Your task to perform on an android device: Is it going to rain this weekend? Image 0: 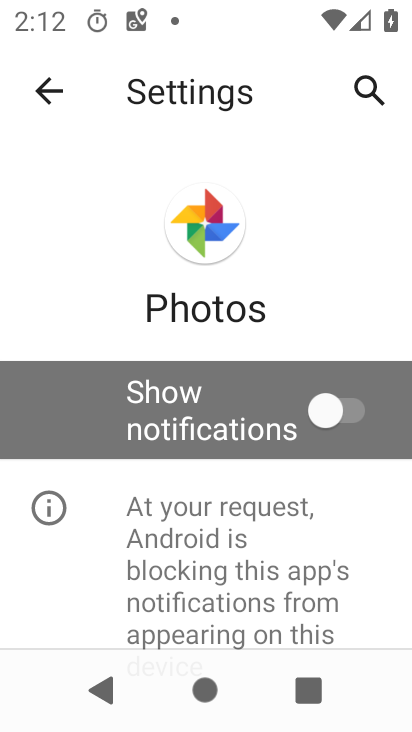
Step 0: press home button
Your task to perform on an android device: Is it going to rain this weekend? Image 1: 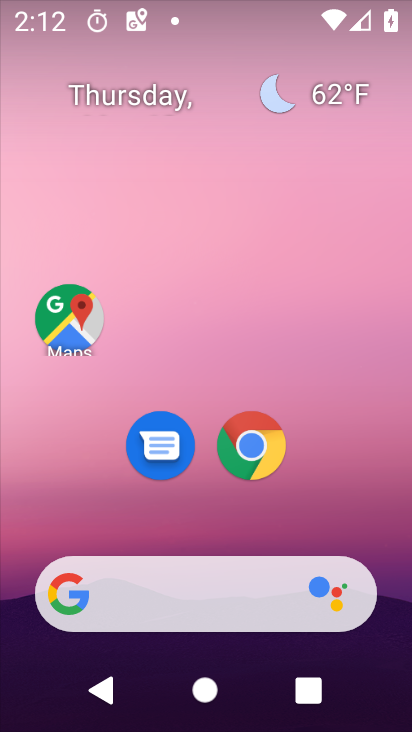
Step 1: click (298, 88)
Your task to perform on an android device: Is it going to rain this weekend? Image 2: 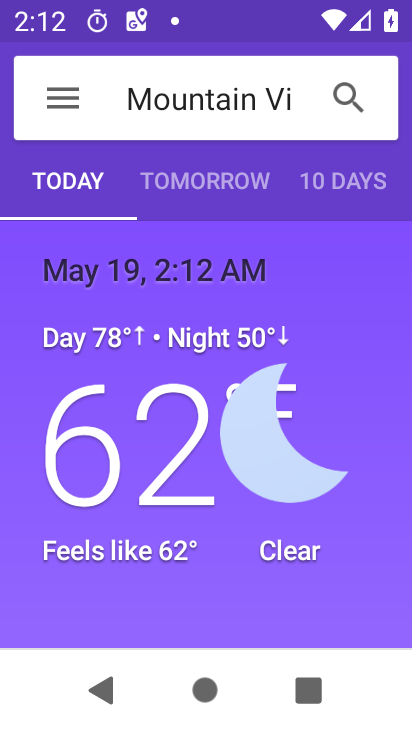
Step 2: click (330, 182)
Your task to perform on an android device: Is it going to rain this weekend? Image 3: 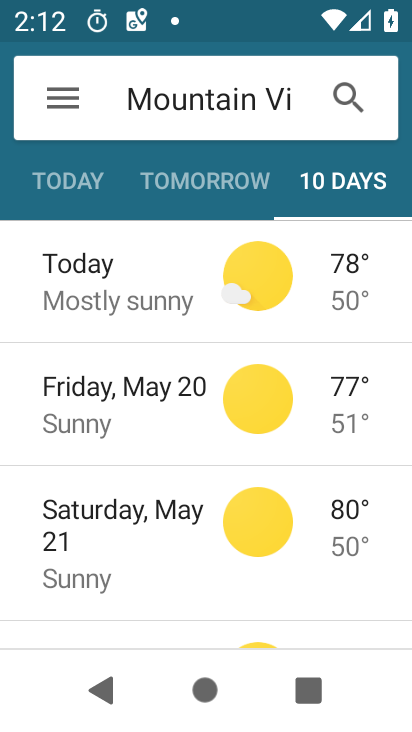
Step 3: task complete